Your task to perform on an android device: Open maps Image 0: 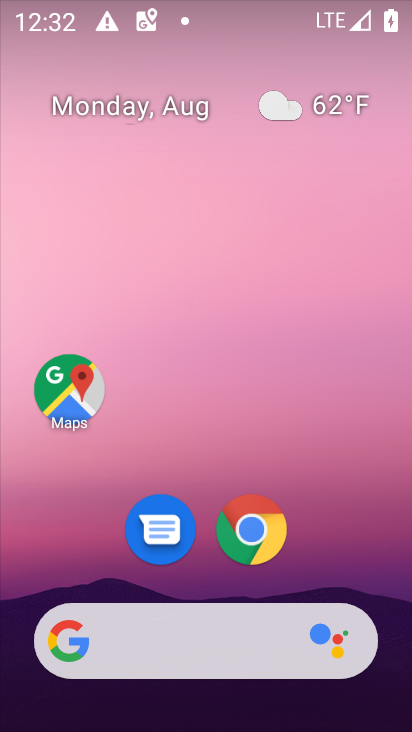
Step 0: click (63, 396)
Your task to perform on an android device: Open maps Image 1: 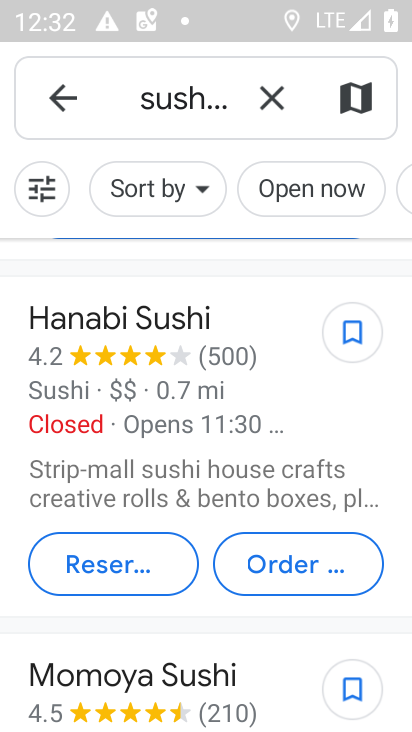
Step 1: click (271, 96)
Your task to perform on an android device: Open maps Image 2: 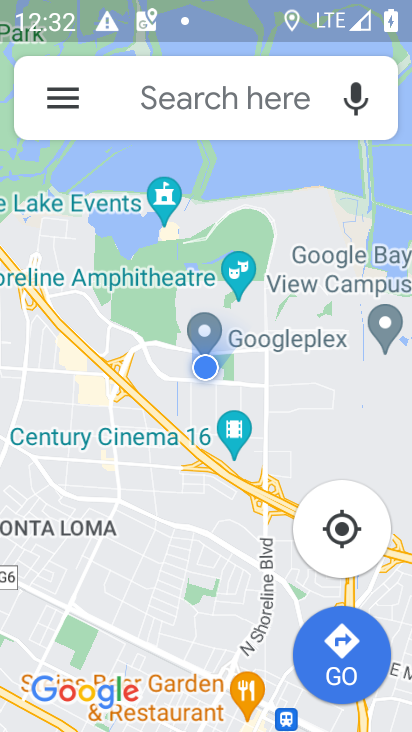
Step 2: task complete